Your task to perform on an android device: Go to Amazon Image 0: 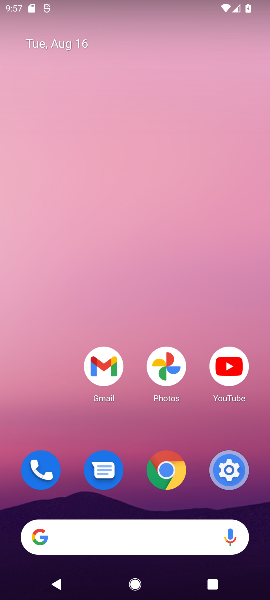
Step 0: click (174, 470)
Your task to perform on an android device: Go to Amazon Image 1: 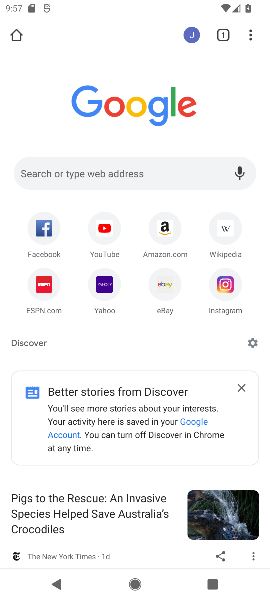
Step 1: click (164, 224)
Your task to perform on an android device: Go to Amazon Image 2: 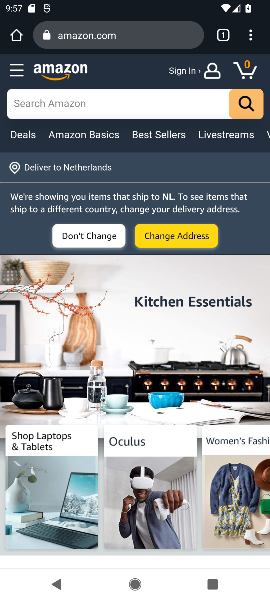
Step 2: task complete